Your task to perform on an android device: Set the phone to "Do not disturb". Image 0: 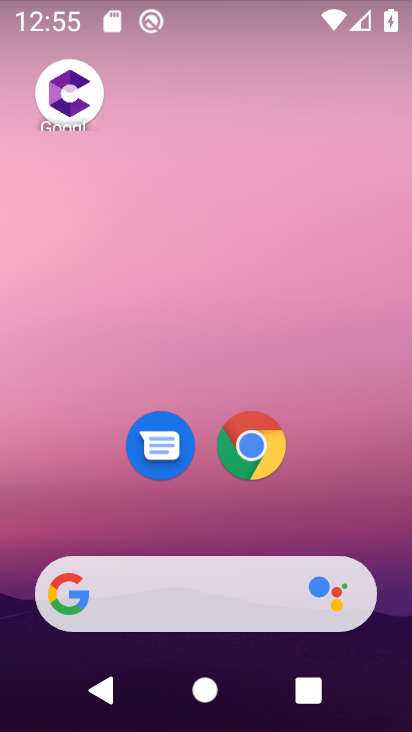
Step 0: drag from (196, 520) to (13, 334)
Your task to perform on an android device: Set the phone to "Do not disturb". Image 1: 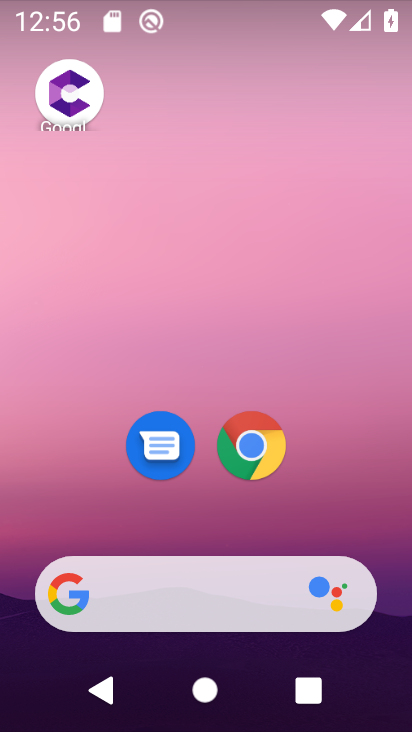
Step 1: drag from (236, 508) to (226, 89)
Your task to perform on an android device: Set the phone to "Do not disturb". Image 2: 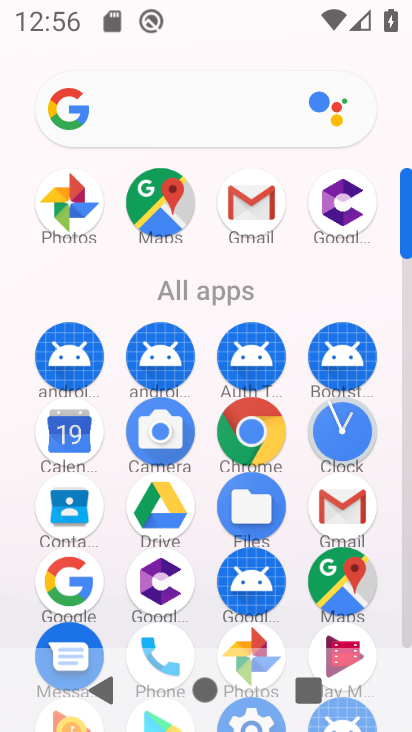
Step 2: drag from (204, 542) to (202, 255)
Your task to perform on an android device: Set the phone to "Do not disturb". Image 3: 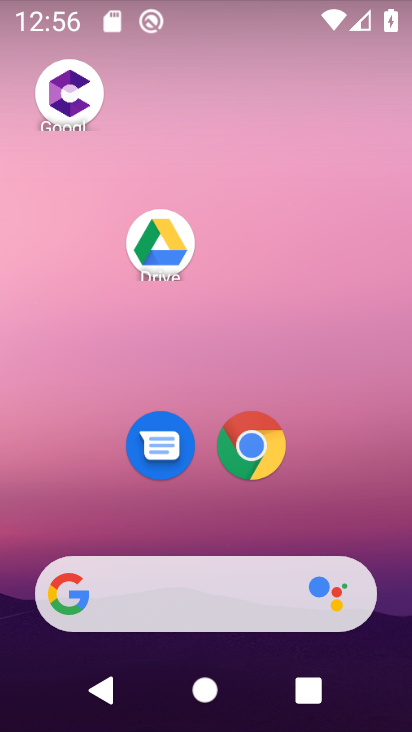
Step 3: drag from (209, 540) to (209, 115)
Your task to perform on an android device: Set the phone to "Do not disturb". Image 4: 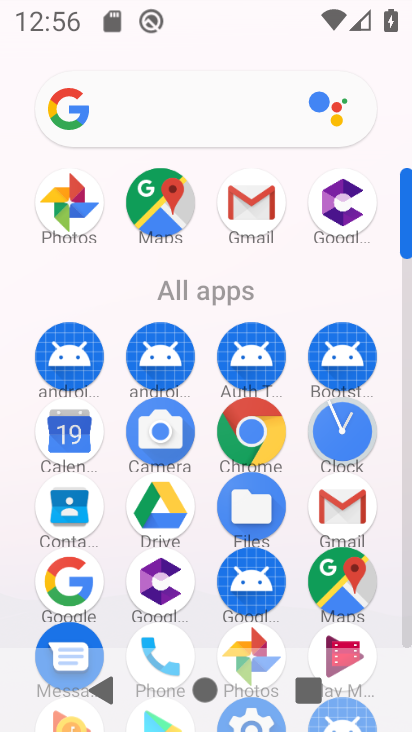
Step 4: drag from (216, 301) to (218, 94)
Your task to perform on an android device: Set the phone to "Do not disturb". Image 5: 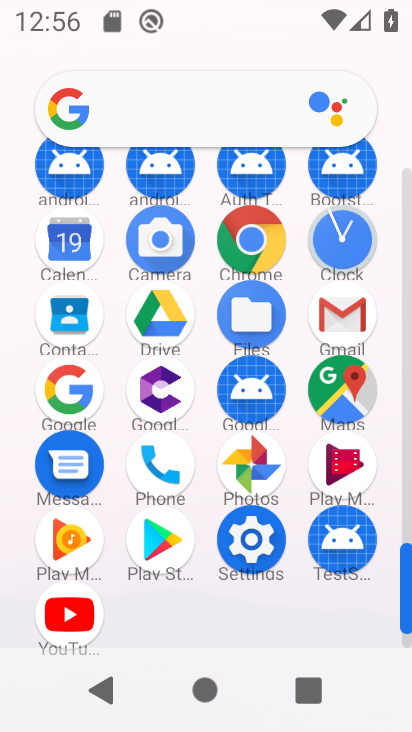
Step 5: click (252, 560)
Your task to perform on an android device: Set the phone to "Do not disturb". Image 6: 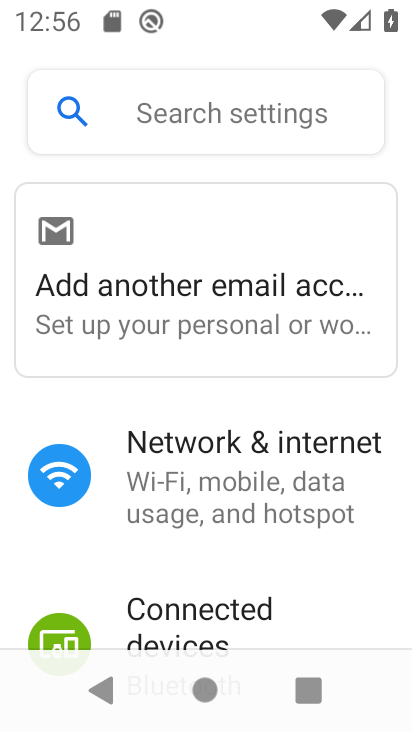
Step 6: drag from (263, 561) to (261, 284)
Your task to perform on an android device: Set the phone to "Do not disturb". Image 7: 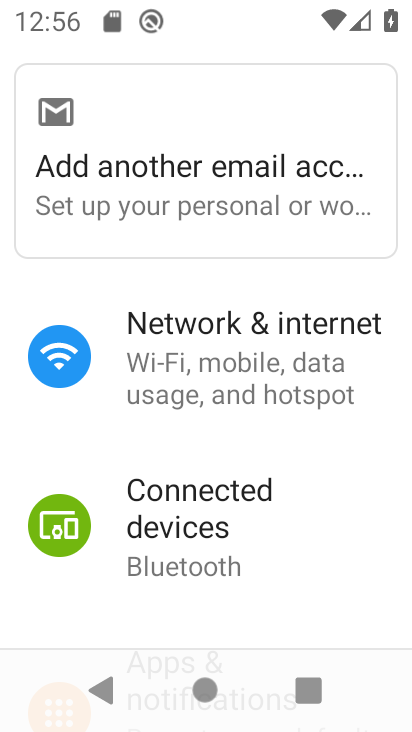
Step 7: drag from (229, 459) to (250, 194)
Your task to perform on an android device: Set the phone to "Do not disturb". Image 8: 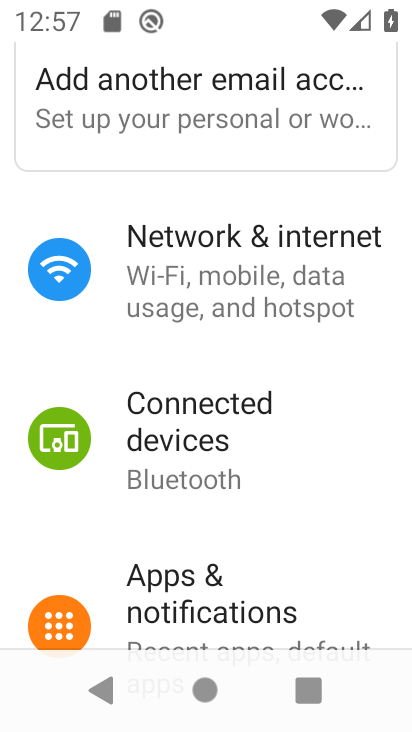
Step 8: drag from (283, 510) to (312, 258)
Your task to perform on an android device: Set the phone to "Do not disturb". Image 9: 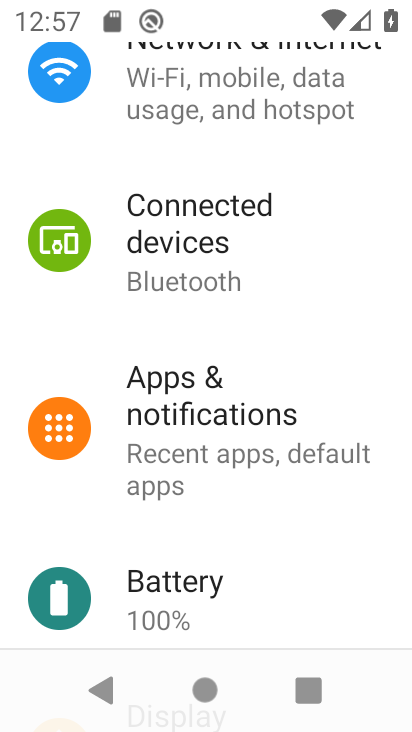
Step 9: drag from (296, 518) to (355, 236)
Your task to perform on an android device: Set the phone to "Do not disturb". Image 10: 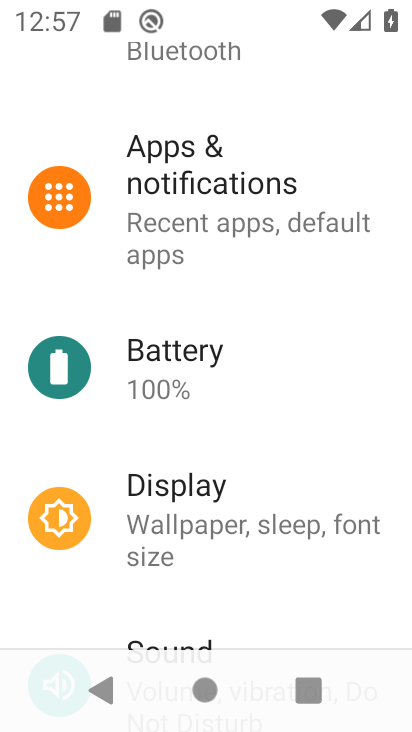
Step 10: drag from (275, 570) to (322, 244)
Your task to perform on an android device: Set the phone to "Do not disturb". Image 11: 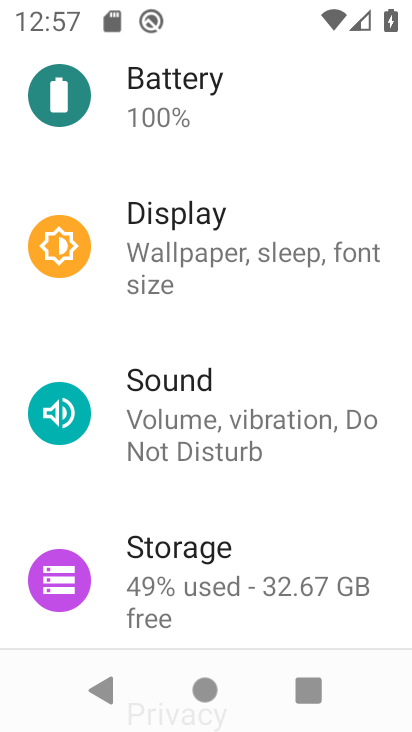
Step 11: click (292, 444)
Your task to perform on an android device: Set the phone to "Do not disturb". Image 12: 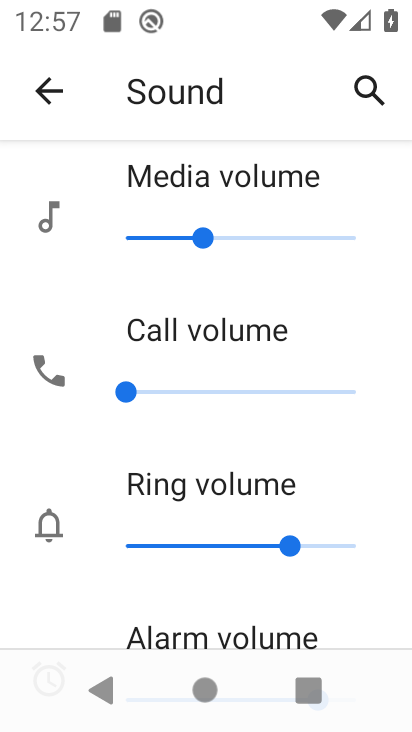
Step 12: drag from (200, 353) to (237, 4)
Your task to perform on an android device: Set the phone to "Do not disturb". Image 13: 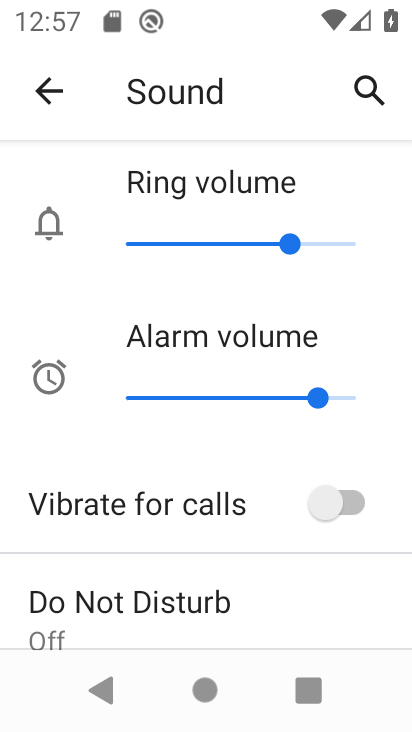
Step 13: drag from (208, 558) to (253, 336)
Your task to perform on an android device: Set the phone to "Do not disturb". Image 14: 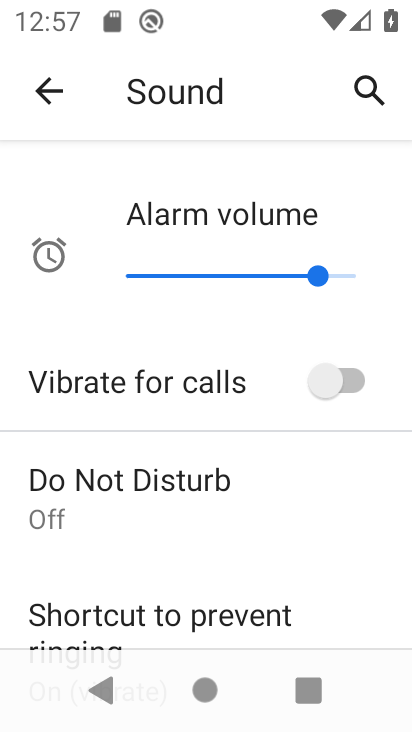
Step 14: click (195, 470)
Your task to perform on an android device: Set the phone to "Do not disturb". Image 15: 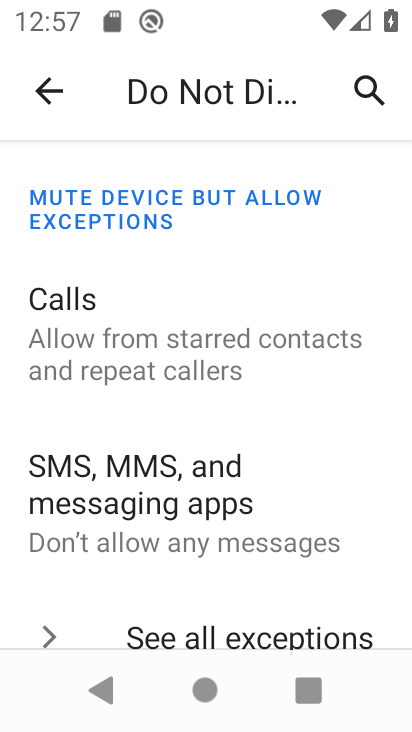
Step 15: drag from (180, 468) to (222, 291)
Your task to perform on an android device: Set the phone to "Do not disturb". Image 16: 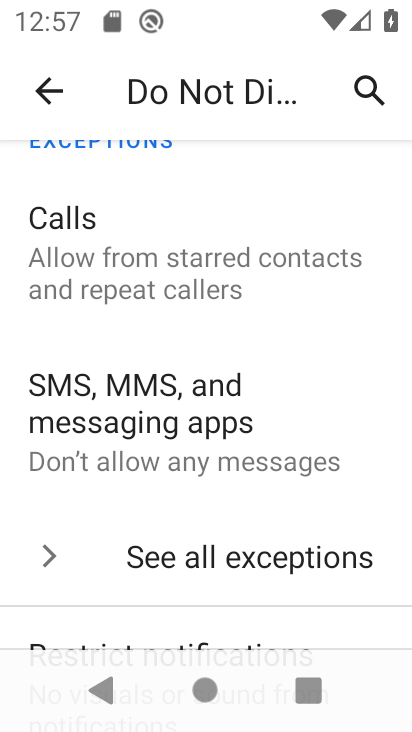
Step 16: drag from (219, 508) to (267, 207)
Your task to perform on an android device: Set the phone to "Do not disturb". Image 17: 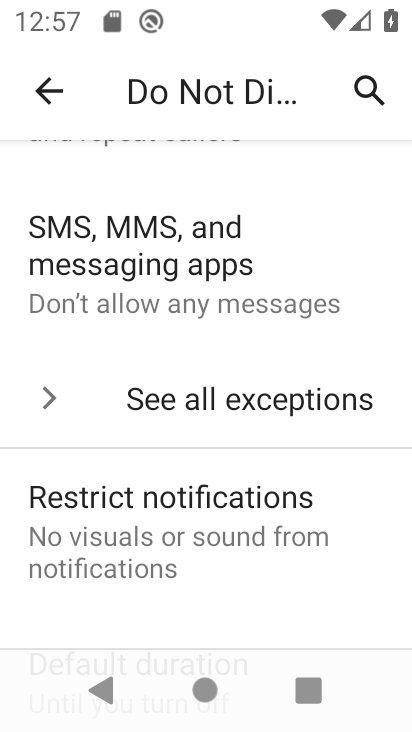
Step 17: drag from (240, 538) to (267, 250)
Your task to perform on an android device: Set the phone to "Do not disturb". Image 18: 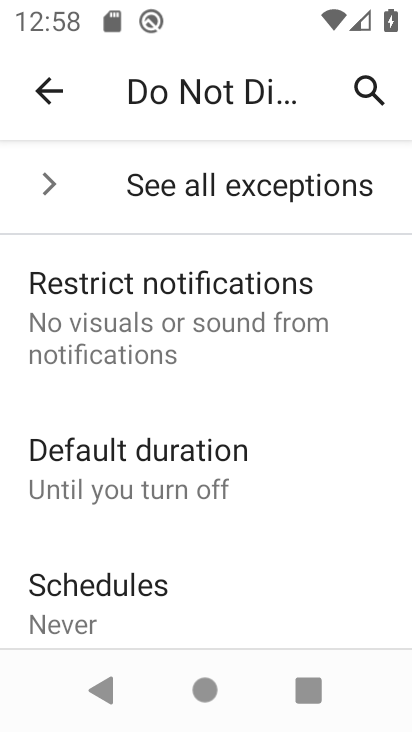
Step 18: drag from (220, 518) to (243, 189)
Your task to perform on an android device: Set the phone to "Do not disturb". Image 19: 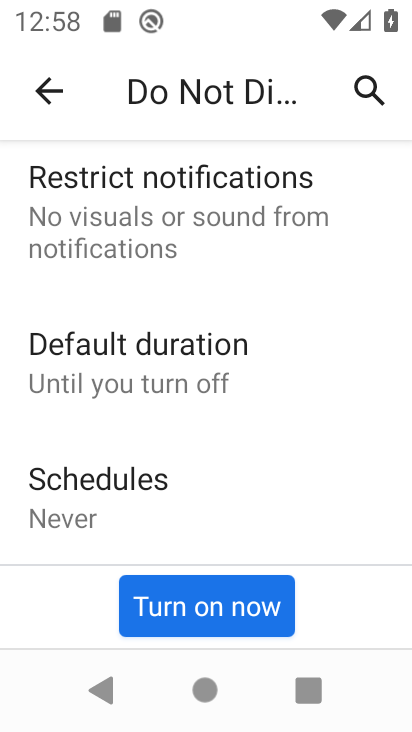
Step 19: click (221, 605)
Your task to perform on an android device: Set the phone to "Do not disturb". Image 20: 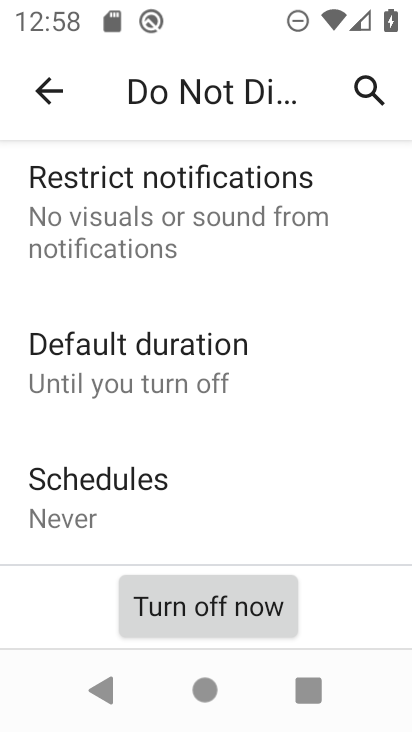
Step 20: task complete